Your task to perform on an android device: turn on data saver in the chrome app Image 0: 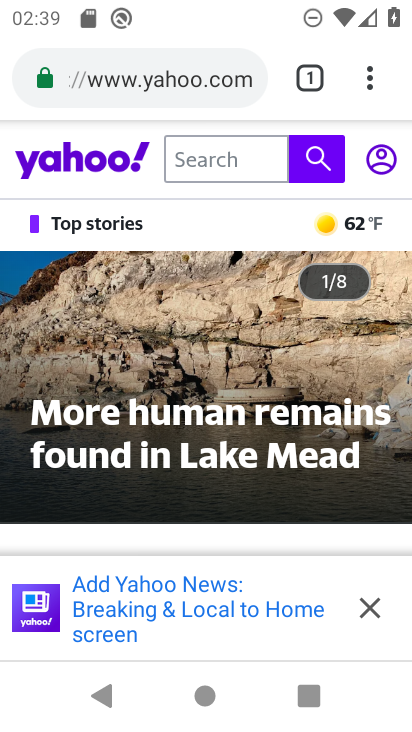
Step 0: click (390, 99)
Your task to perform on an android device: turn on data saver in the chrome app Image 1: 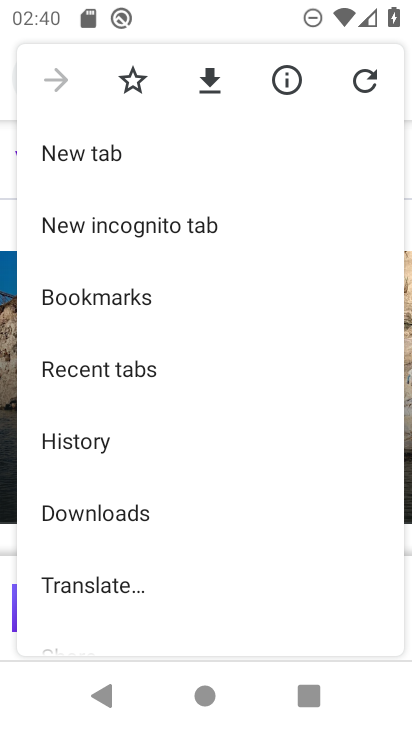
Step 1: drag from (150, 586) to (245, 209)
Your task to perform on an android device: turn on data saver in the chrome app Image 2: 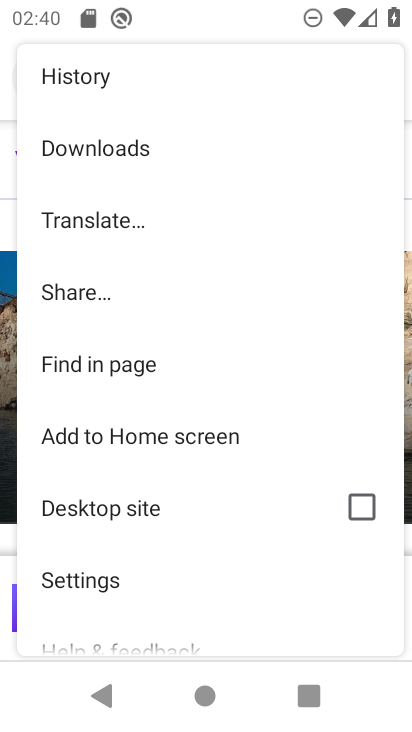
Step 2: drag from (126, 552) to (204, 269)
Your task to perform on an android device: turn on data saver in the chrome app Image 3: 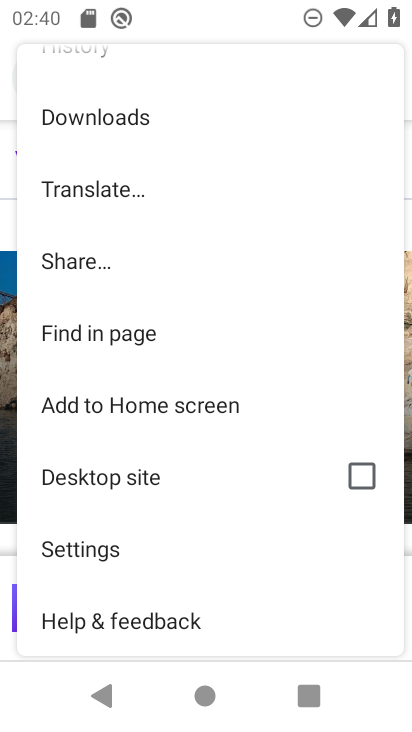
Step 3: click (164, 541)
Your task to perform on an android device: turn on data saver in the chrome app Image 4: 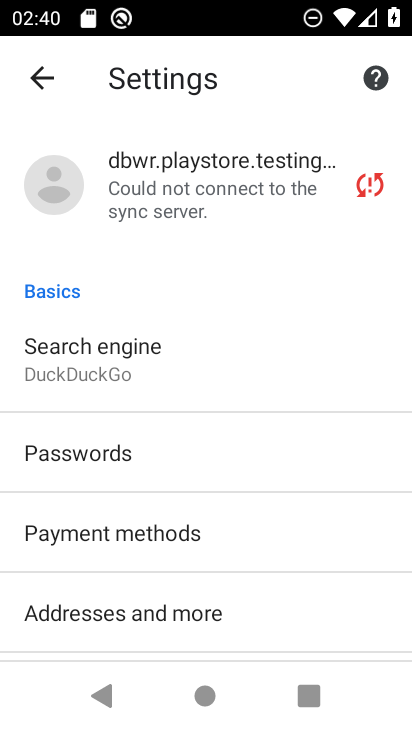
Step 4: drag from (108, 571) to (160, 426)
Your task to perform on an android device: turn on data saver in the chrome app Image 5: 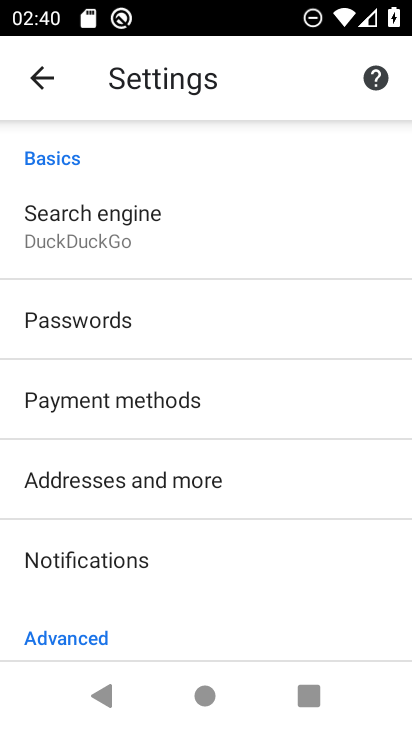
Step 5: drag from (120, 587) to (218, 375)
Your task to perform on an android device: turn on data saver in the chrome app Image 6: 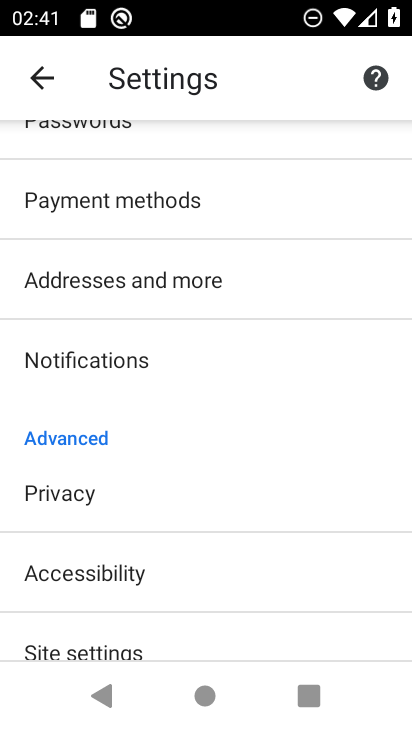
Step 6: drag from (88, 606) to (174, 351)
Your task to perform on an android device: turn on data saver in the chrome app Image 7: 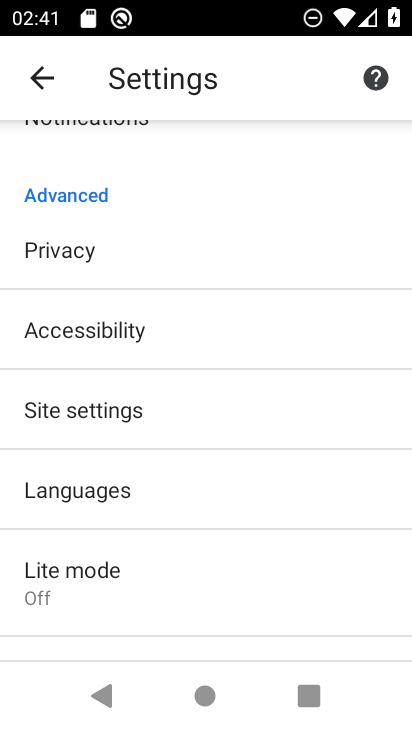
Step 7: click (150, 559)
Your task to perform on an android device: turn on data saver in the chrome app Image 8: 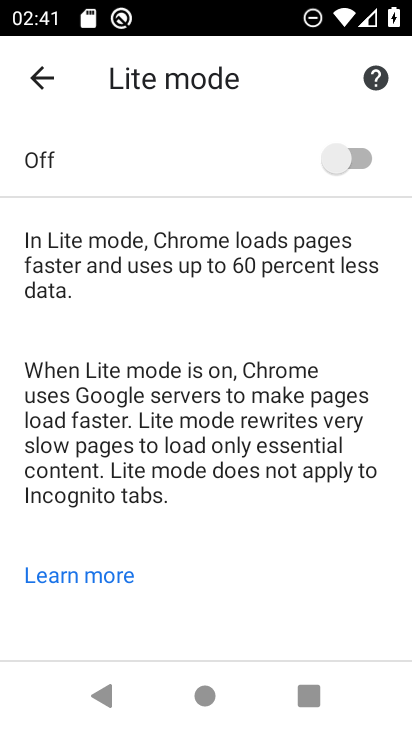
Step 8: click (373, 157)
Your task to perform on an android device: turn on data saver in the chrome app Image 9: 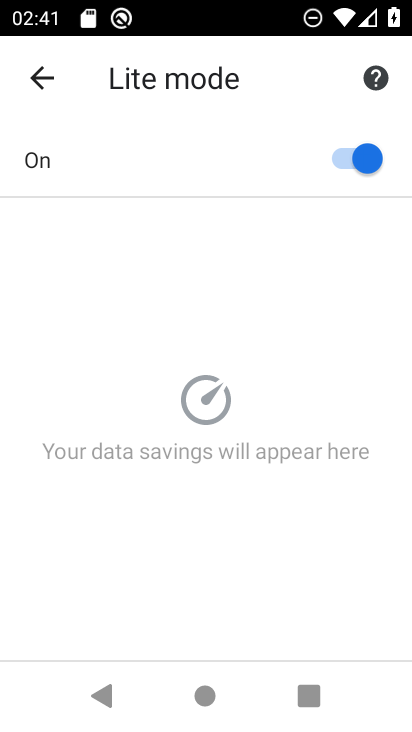
Step 9: task complete